Your task to perform on an android device: Clear all items from cart on bestbuy. Add "razer huntsman" to the cart on bestbuy Image 0: 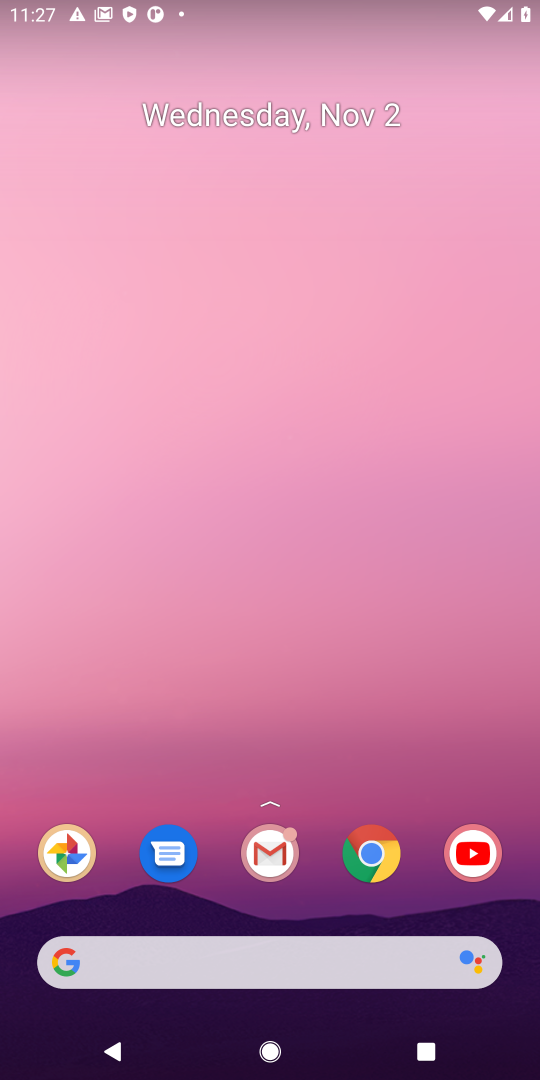
Step 0: click (376, 849)
Your task to perform on an android device: Clear all items from cart on bestbuy. Add "razer huntsman" to the cart on bestbuy Image 1: 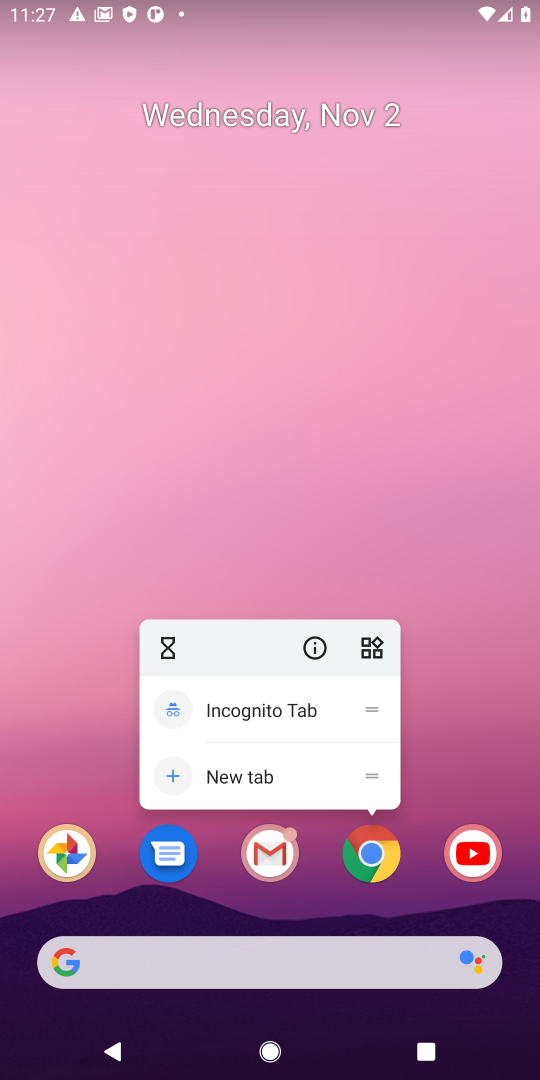
Step 1: click (372, 857)
Your task to perform on an android device: Clear all items from cart on bestbuy. Add "razer huntsman" to the cart on bestbuy Image 2: 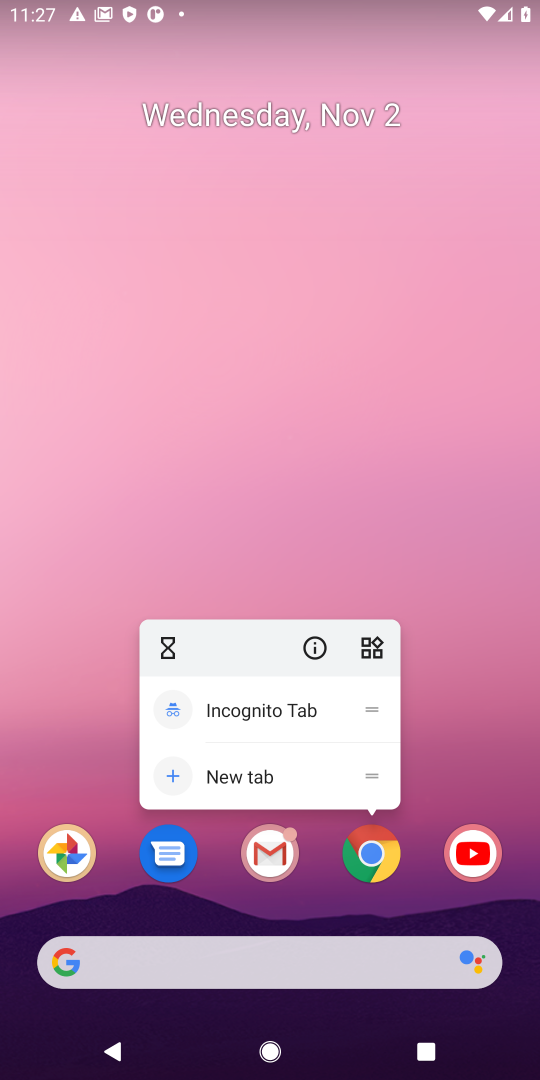
Step 2: click (372, 857)
Your task to perform on an android device: Clear all items from cart on bestbuy. Add "razer huntsman" to the cart on bestbuy Image 3: 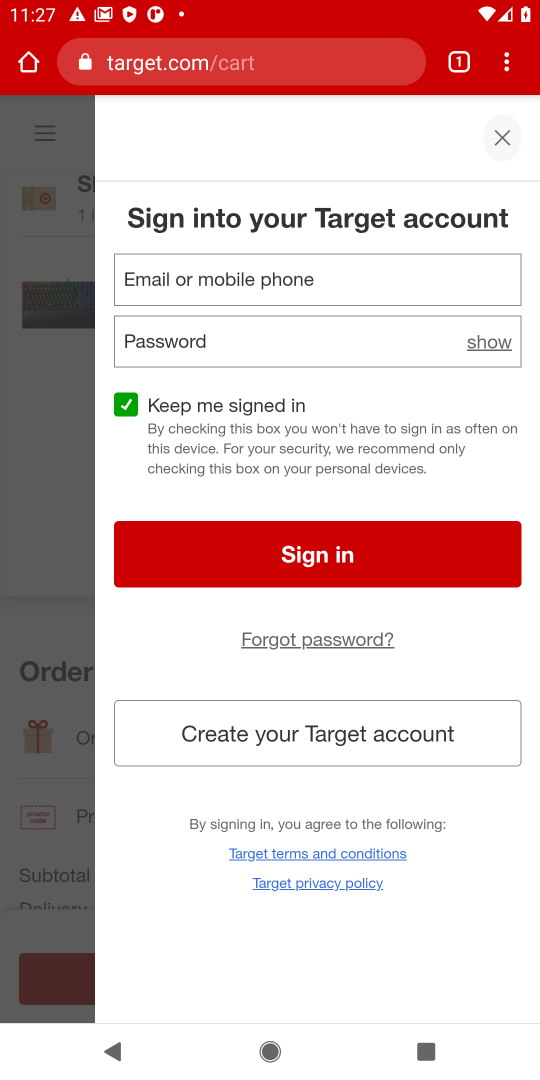
Step 3: click (227, 77)
Your task to perform on an android device: Clear all items from cart on bestbuy. Add "razer huntsman" to the cart on bestbuy Image 4: 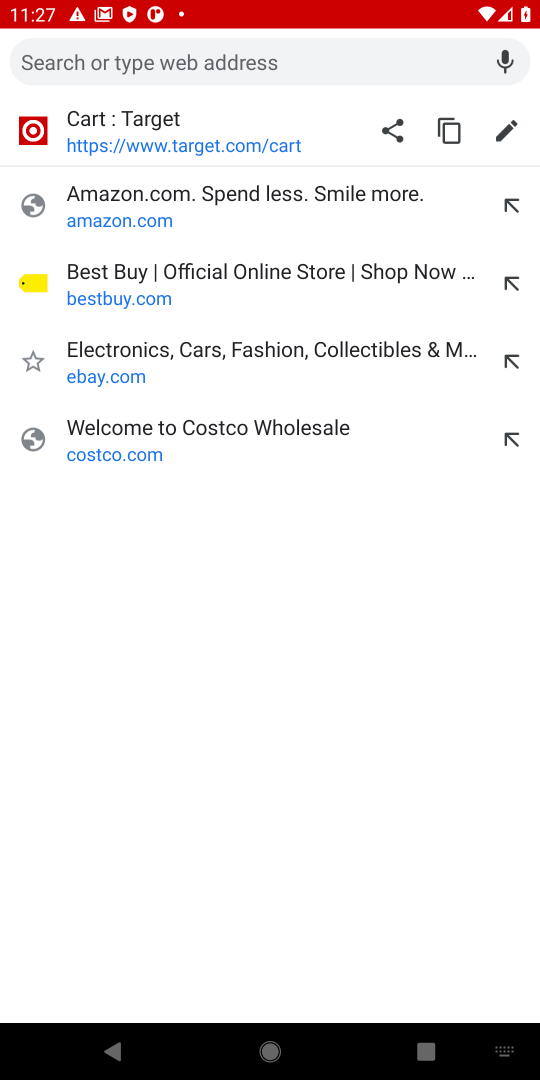
Step 4: click (114, 302)
Your task to perform on an android device: Clear all items from cart on bestbuy. Add "razer huntsman" to the cart on bestbuy Image 5: 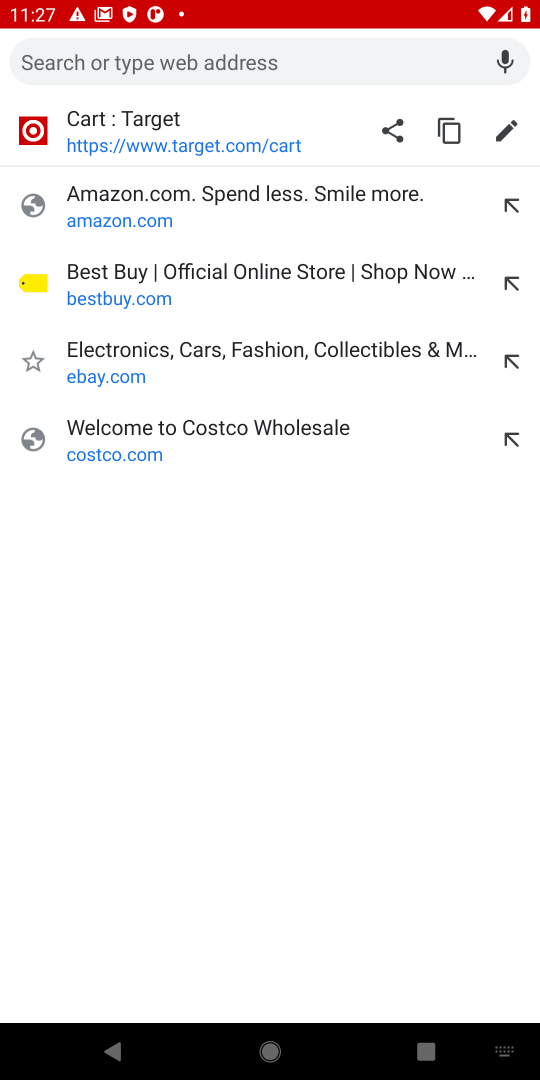
Step 5: click (107, 299)
Your task to perform on an android device: Clear all items from cart on bestbuy. Add "razer huntsman" to the cart on bestbuy Image 6: 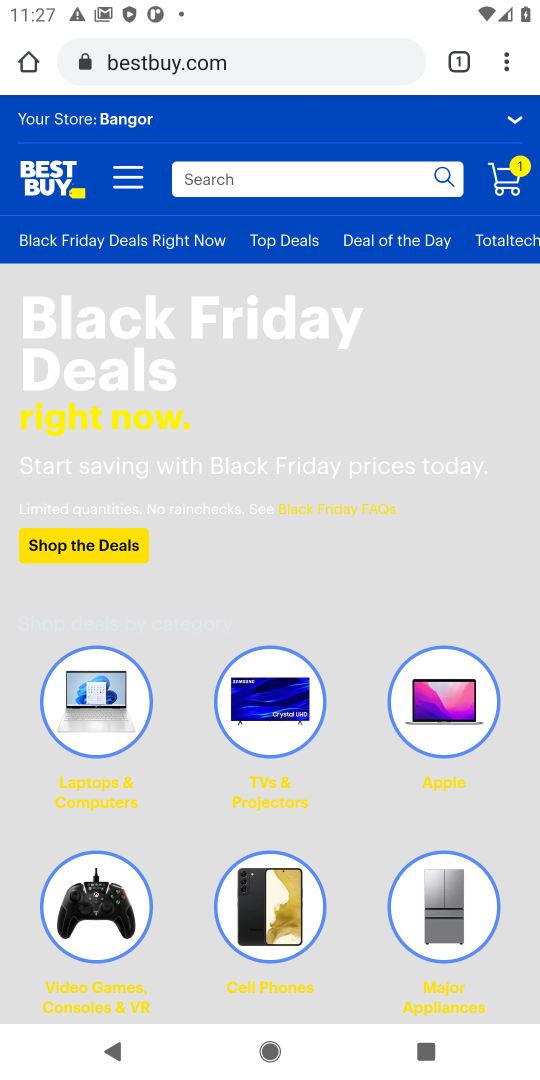
Step 6: click (250, 168)
Your task to perform on an android device: Clear all items from cart on bestbuy. Add "razer huntsman" to the cart on bestbuy Image 7: 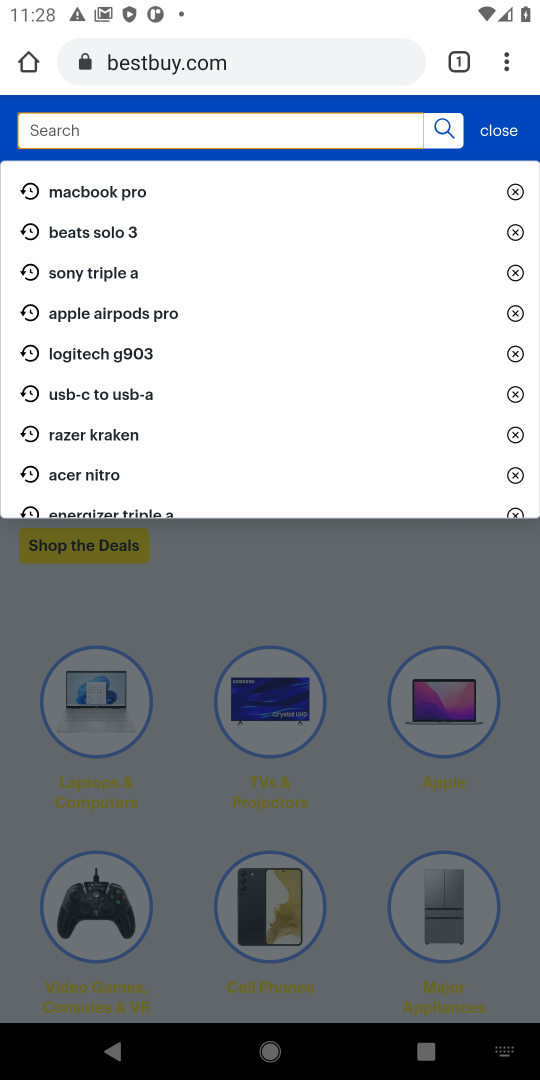
Step 7: type "razer huntsman"
Your task to perform on an android device: Clear all items from cart on bestbuy. Add "razer huntsman" to the cart on bestbuy Image 8: 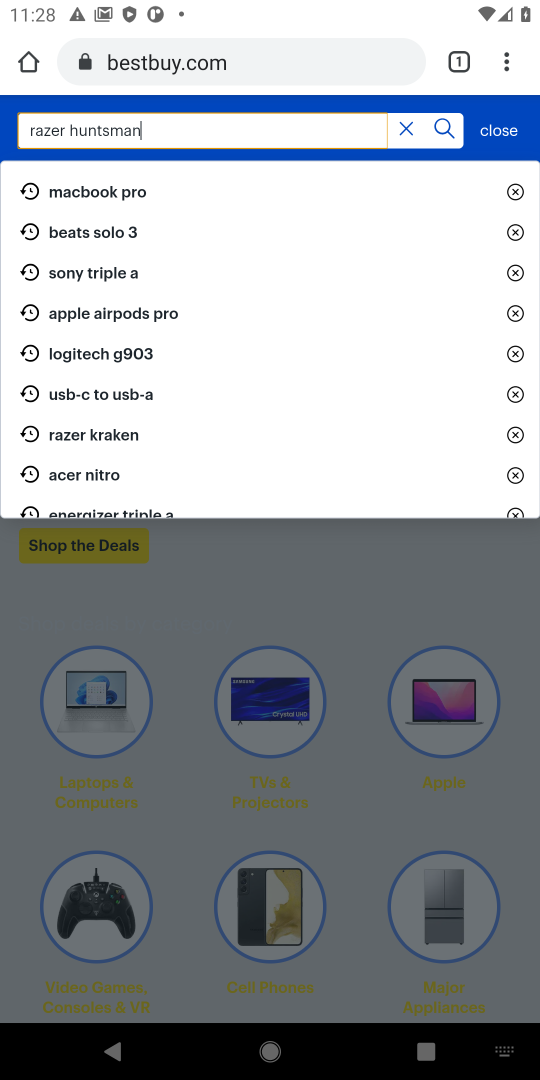
Step 8: press enter
Your task to perform on an android device: Clear all items from cart on bestbuy. Add "razer huntsman" to the cart on bestbuy Image 9: 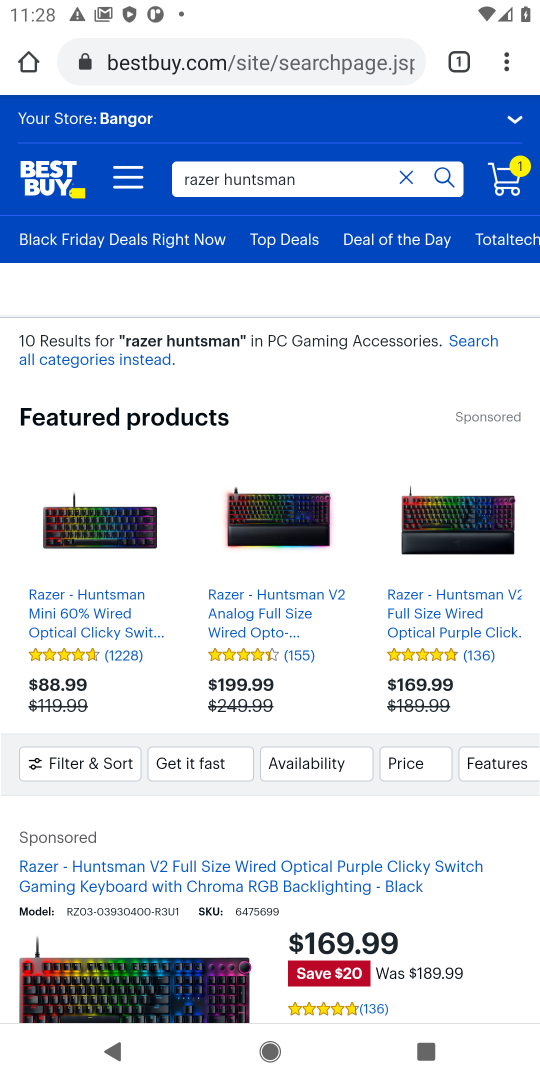
Step 9: drag from (279, 867) to (370, 456)
Your task to perform on an android device: Clear all items from cart on bestbuy. Add "razer huntsman" to the cart on bestbuy Image 10: 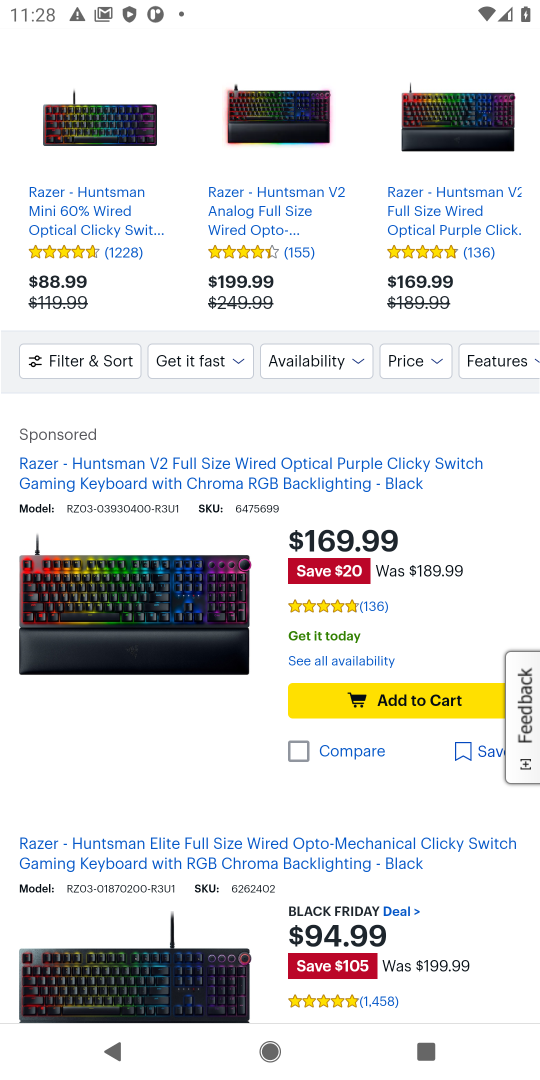
Step 10: click (417, 701)
Your task to perform on an android device: Clear all items from cart on bestbuy. Add "razer huntsman" to the cart on bestbuy Image 11: 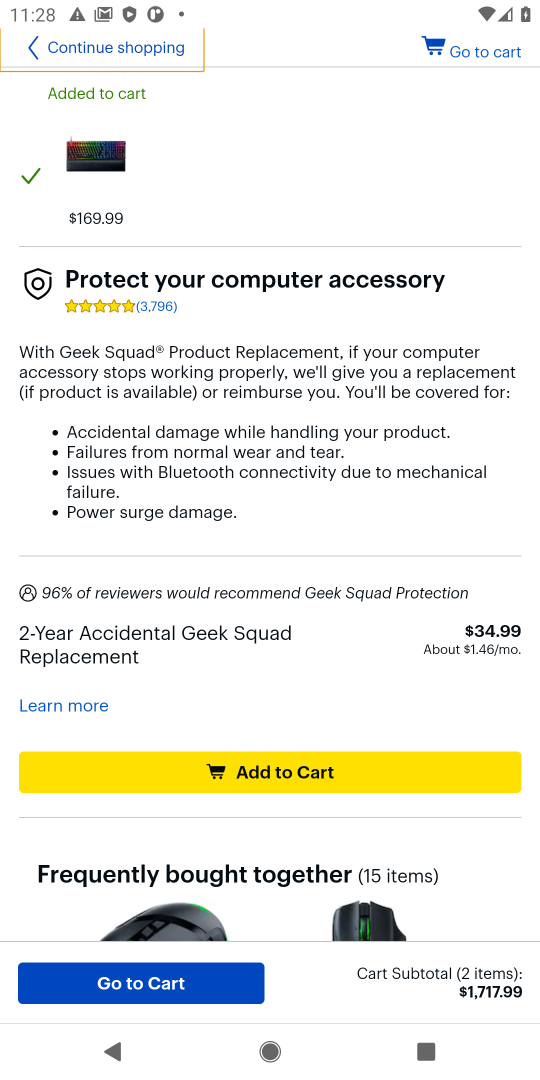
Step 11: click (174, 993)
Your task to perform on an android device: Clear all items from cart on bestbuy. Add "razer huntsman" to the cart on bestbuy Image 12: 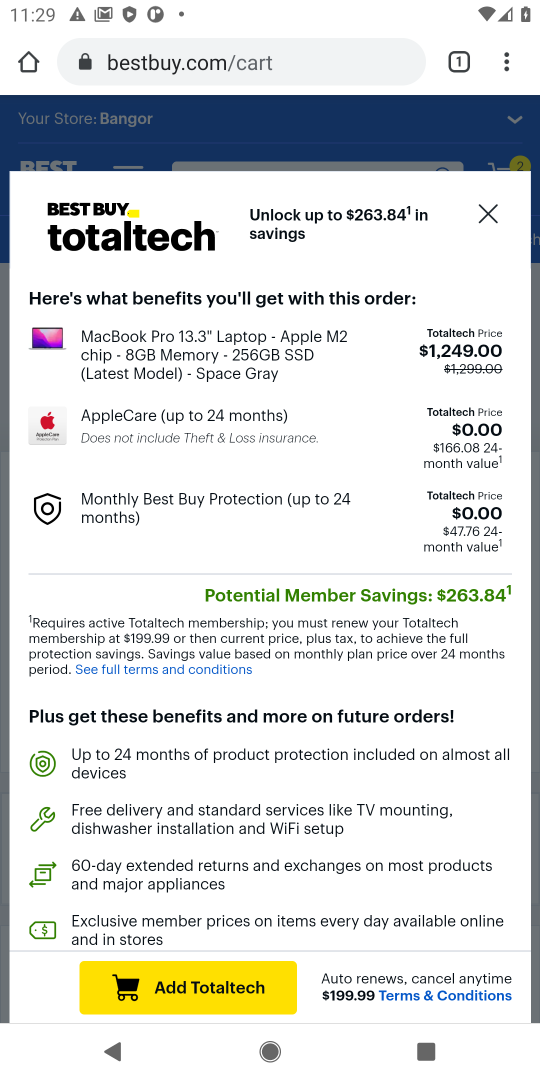
Step 12: click (488, 210)
Your task to perform on an android device: Clear all items from cart on bestbuy. Add "razer huntsman" to the cart on bestbuy Image 13: 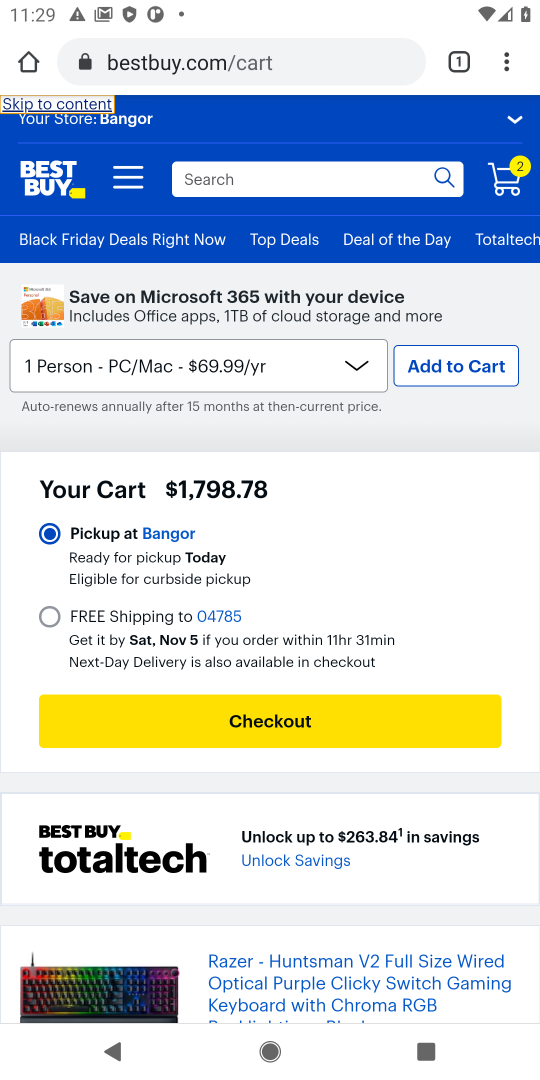
Step 13: drag from (167, 902) to (438, 411)
Your task to perform on an android device: Clear all items from cart on bestbuy. Add "razer huntsman" to the cart on bestbuy Image 14: 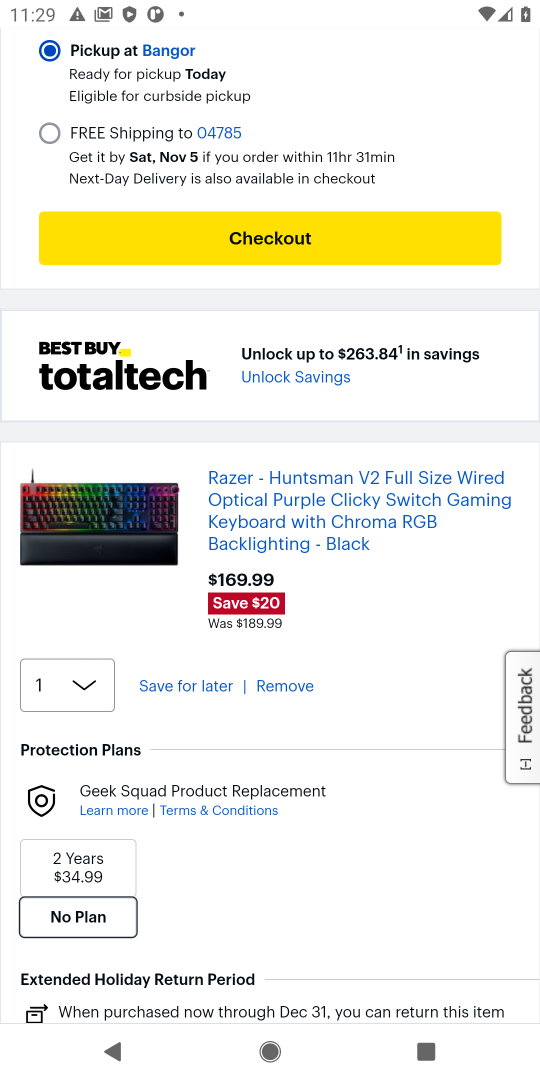
Step 14: drag from (253, 883) to (384, 440)
Your task to perform on an android device: Clear all items from cart on bestbuy. Add "razer huntsman" to the cart on bestbuy Image 15: 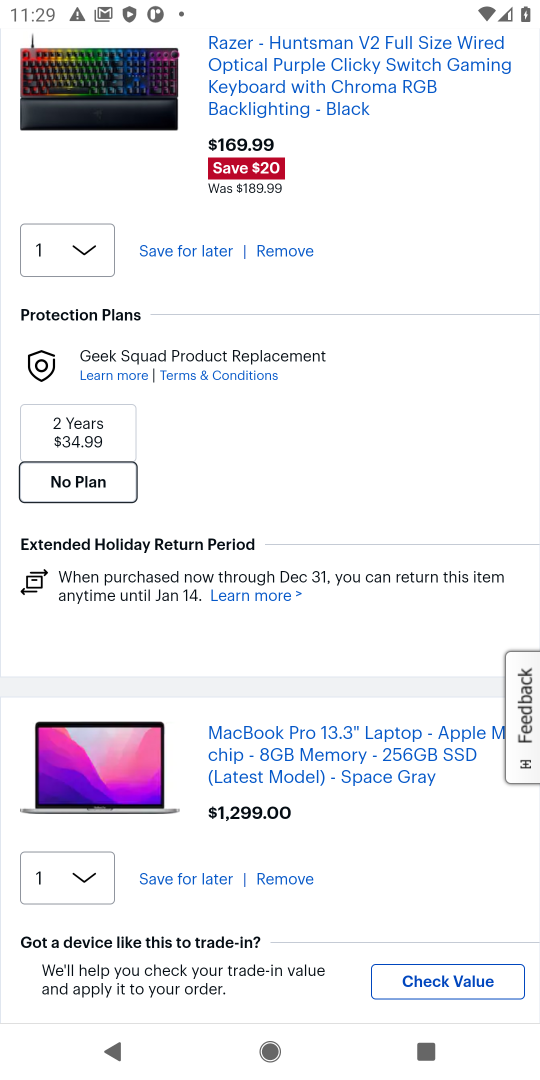
Step 15: drag from (305, 973) to (414, 495)
Your task to perform on an android device: Clear all items from cart on bestbuy. Add "razer huntsman" to the cart on bestbuy Image 16: 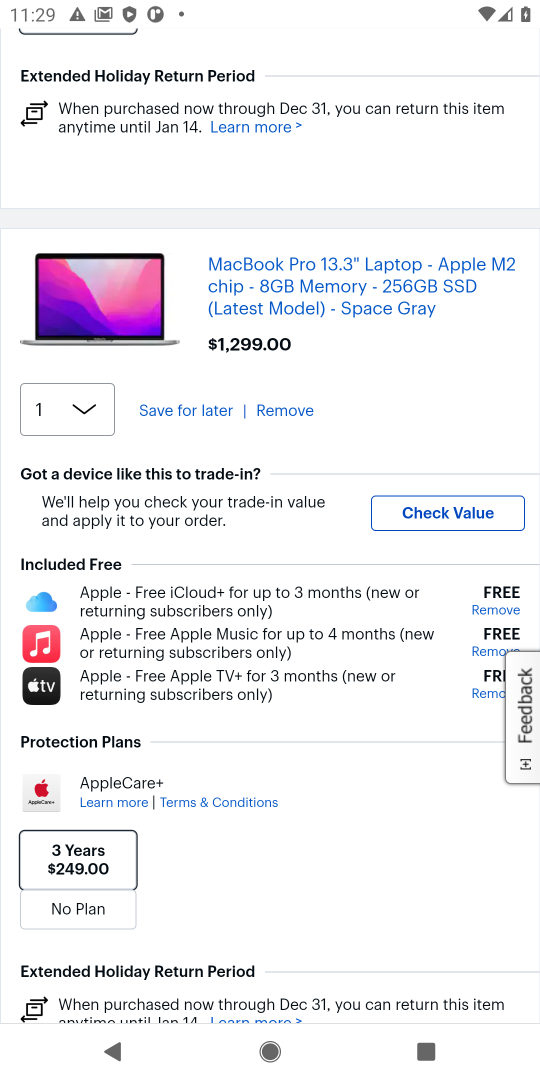
Step 16: click (272, 406)
Your task to perform on an android device: Clear all items from cart on bestbuy. Add "razer huntsman" to the cart on bestbuy Image 17: 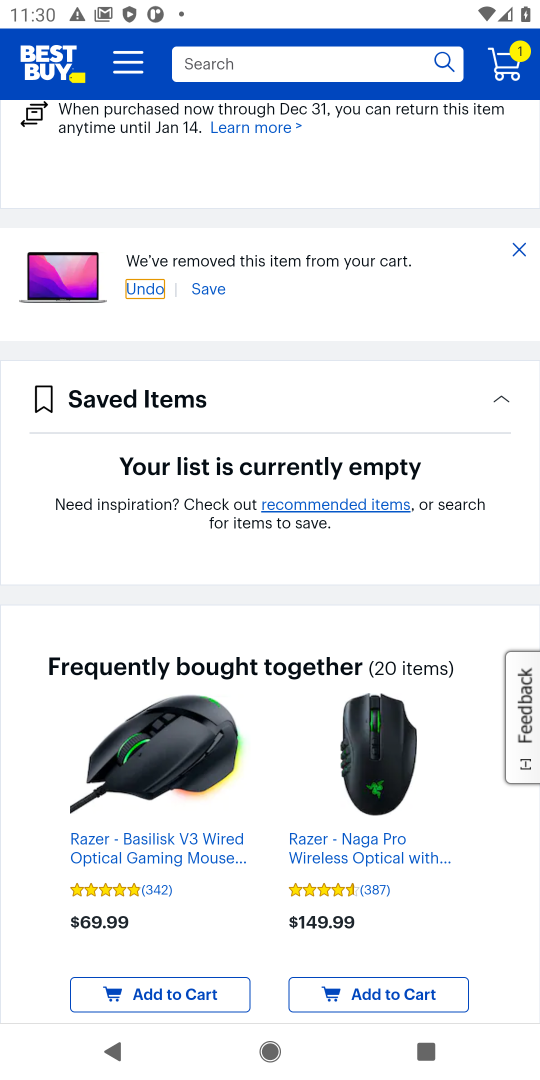
Step 17: task complete